Your task to perform on an android device: Add "razer blade" to the cart on walmart.com Image 0: 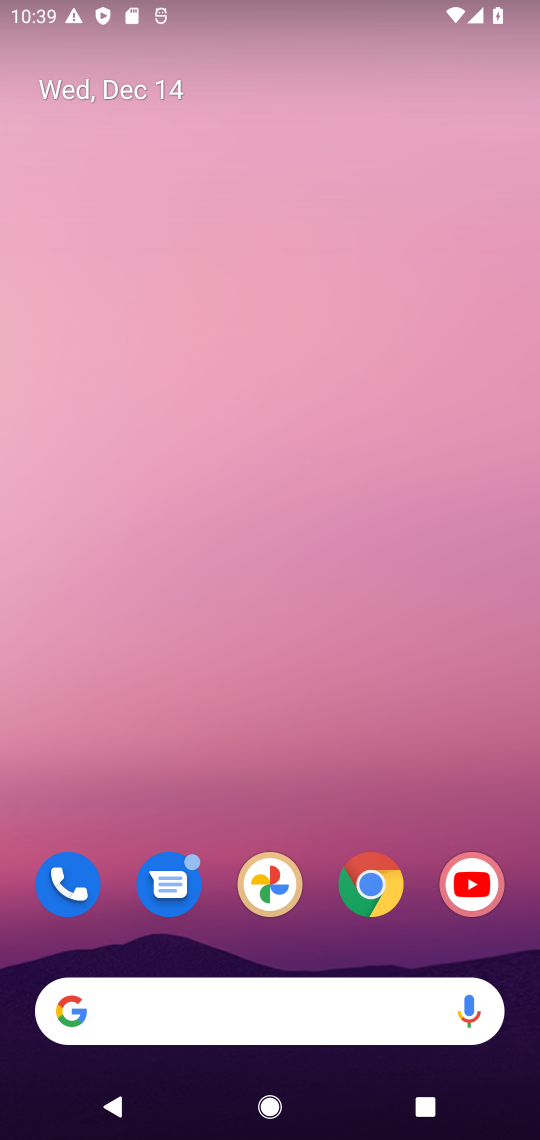
Step 0: click (378, 891)
Your task to perform on an android device: Add "razer blade" to the cart on walmart.com Image 1: 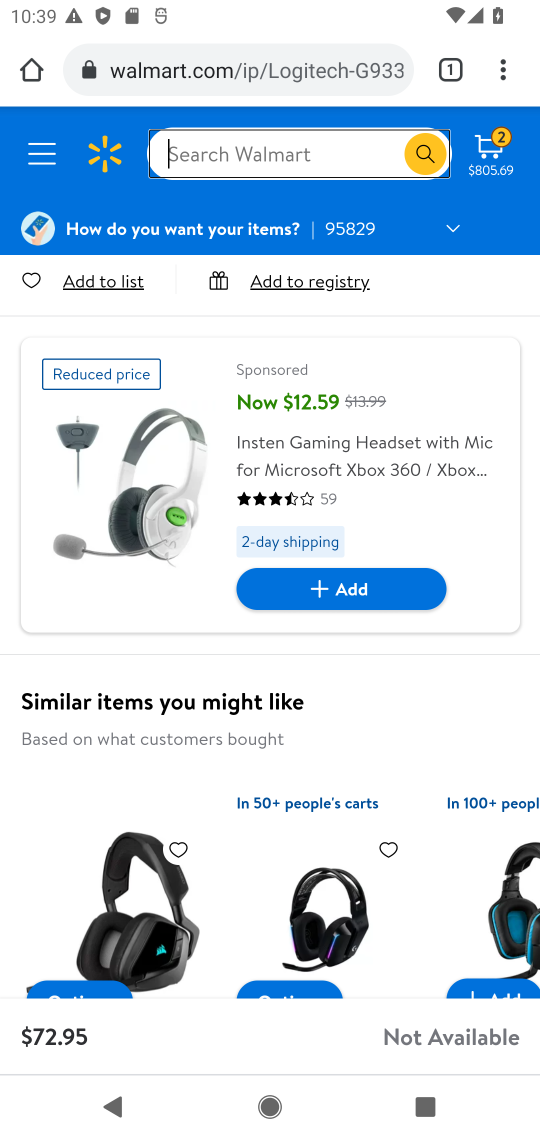
Step 1: click (262, 162)
Your task to perform on an android device: Add "razer blade" to the cart on walmart.com Image 2: 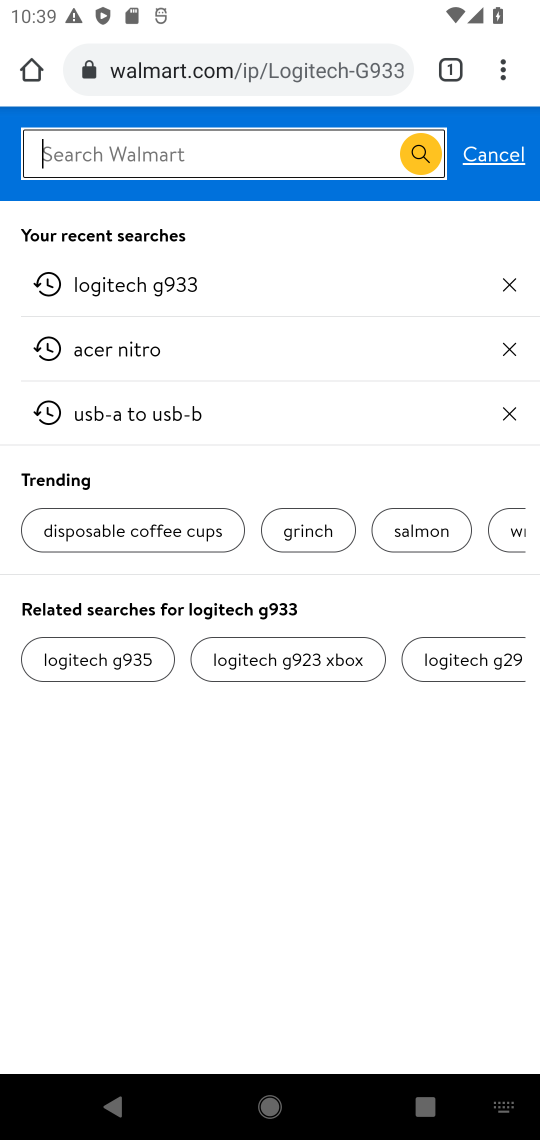
Step 2: press enter
Your task to perform on an android device: Add "razer blade" to the cart on walmart.com Image 3: 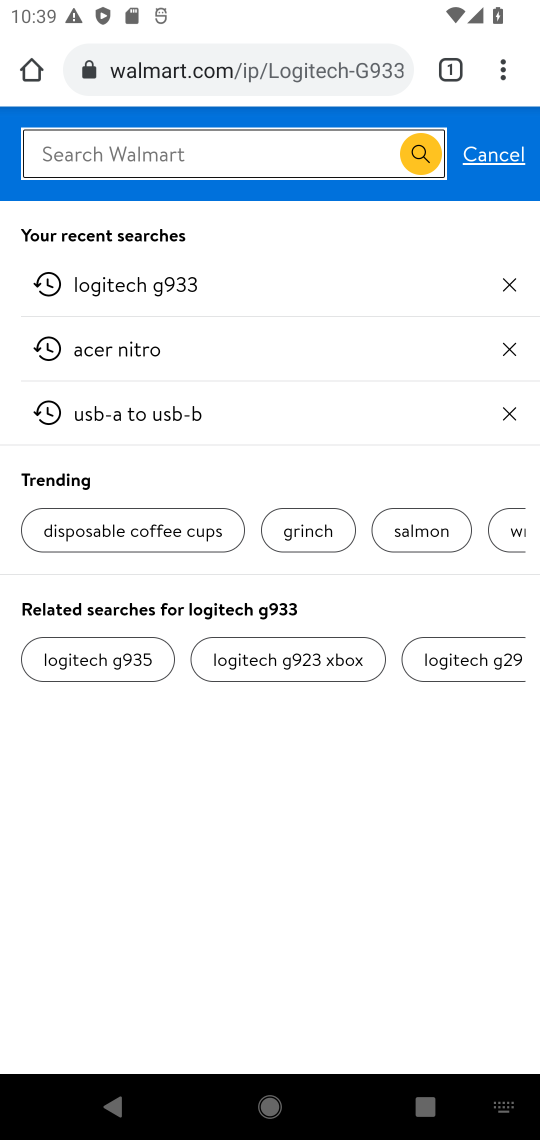
Step 3: type "razer blade"
Your task to perform on an android device: Add "razer blade" to the cart on walmart.com Image 4: 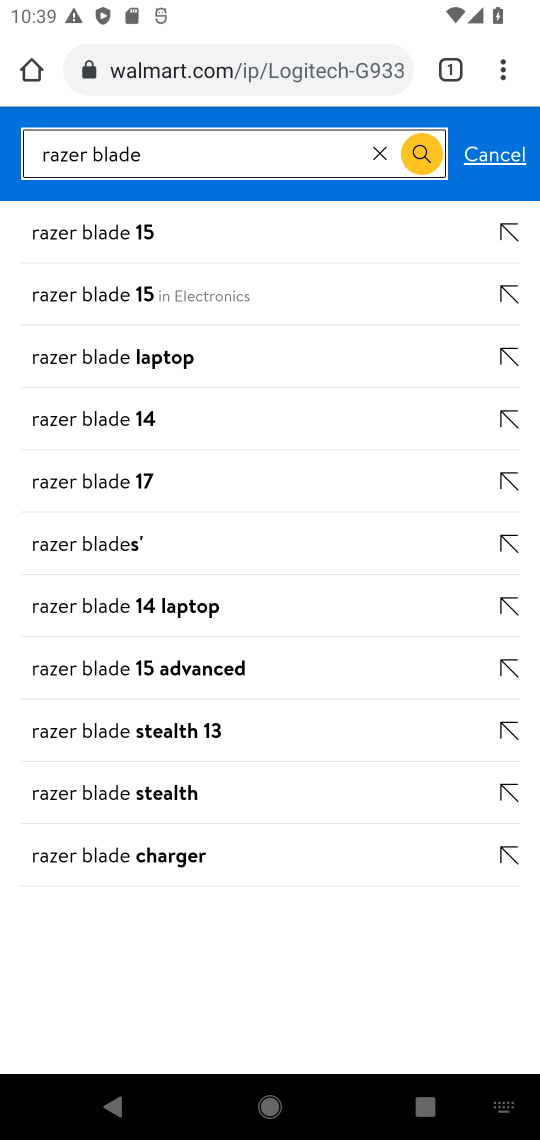
Step 4: click (90, 542)
Your task to perform on an android device: Add "razer blade" to the cart on walmart.com Image 5: 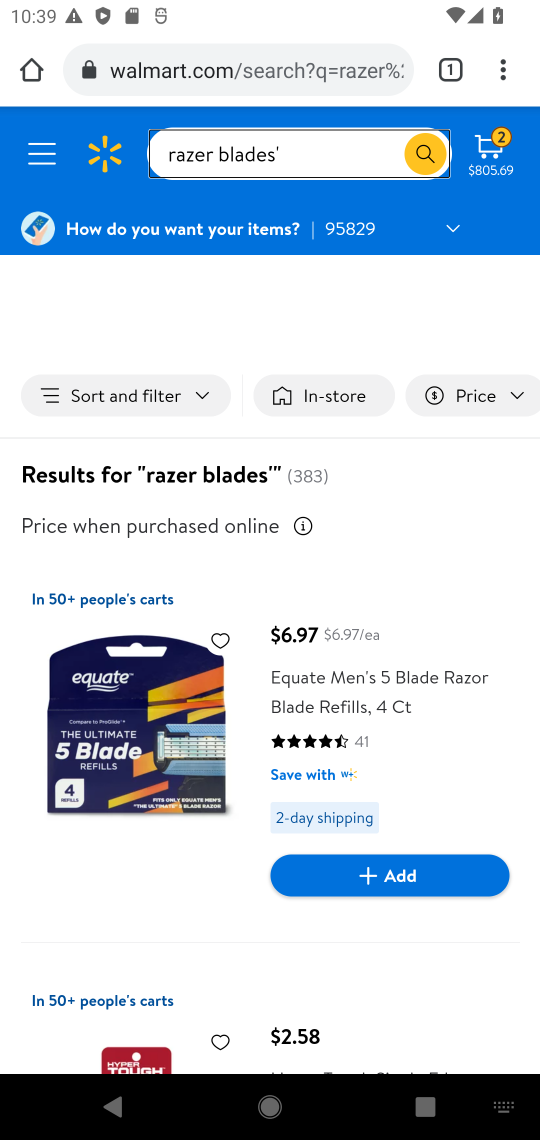
Step 5: drag from (468, 723) to (490, 315)
Your task to perform on an android device: Add "razer blade" to the cart on walmart.com Image 6: 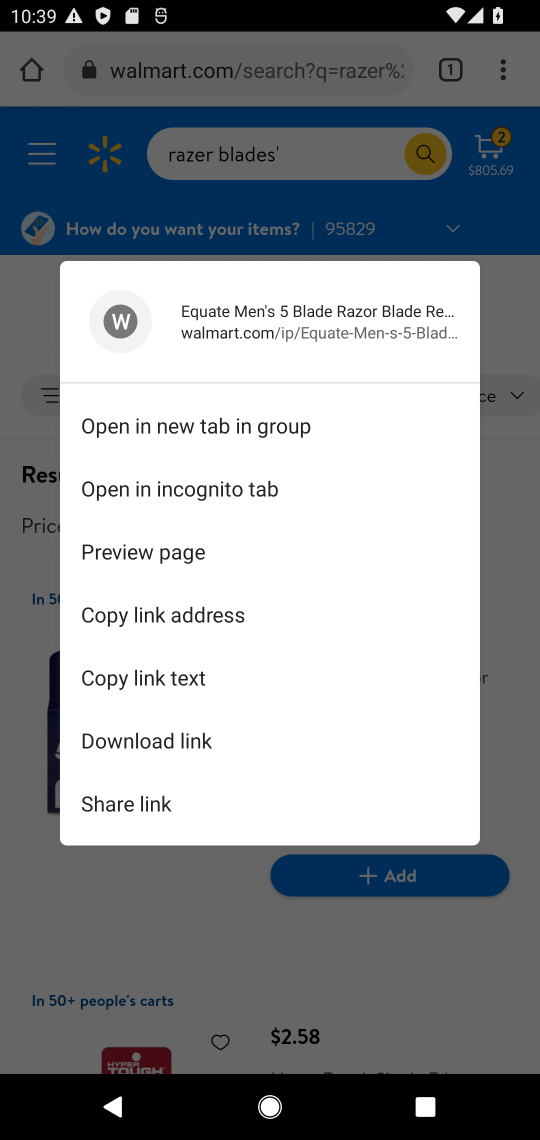
Step 6: click (505, 456)
Your task to perform on an android device: Add "razer blade" to the cart on walmart.com Image 7: 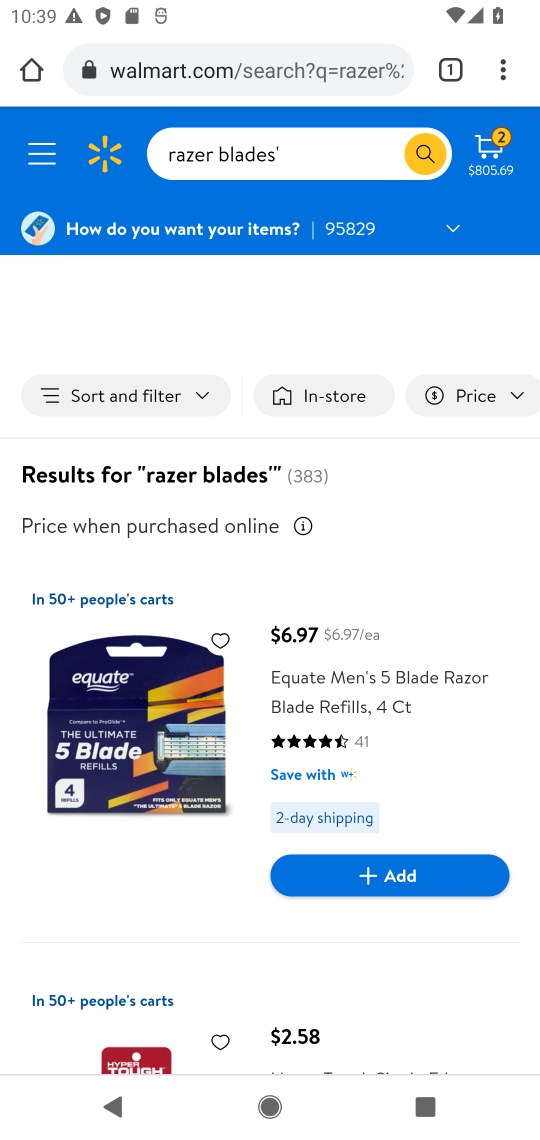
Step 7: drag from (497, 791) to (516, 365)
Your task to perform on an android device: Add "razer blade" to the cart on walmart.com Image 8: 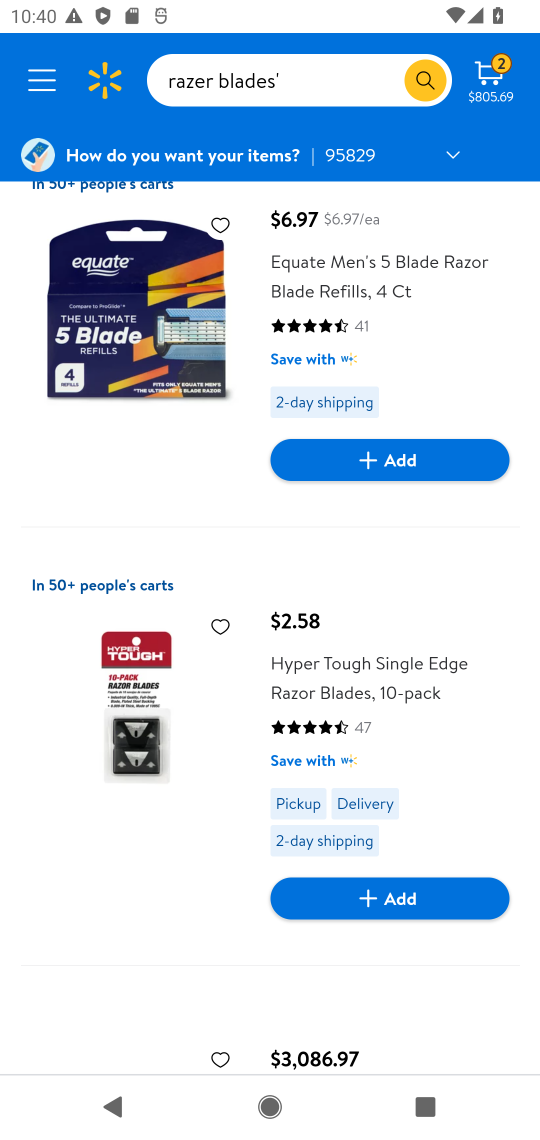
Step 8: click (152, 695)
Your task to perform on an android device: Add "razer blade" to the cart on walmart.com Image 9: 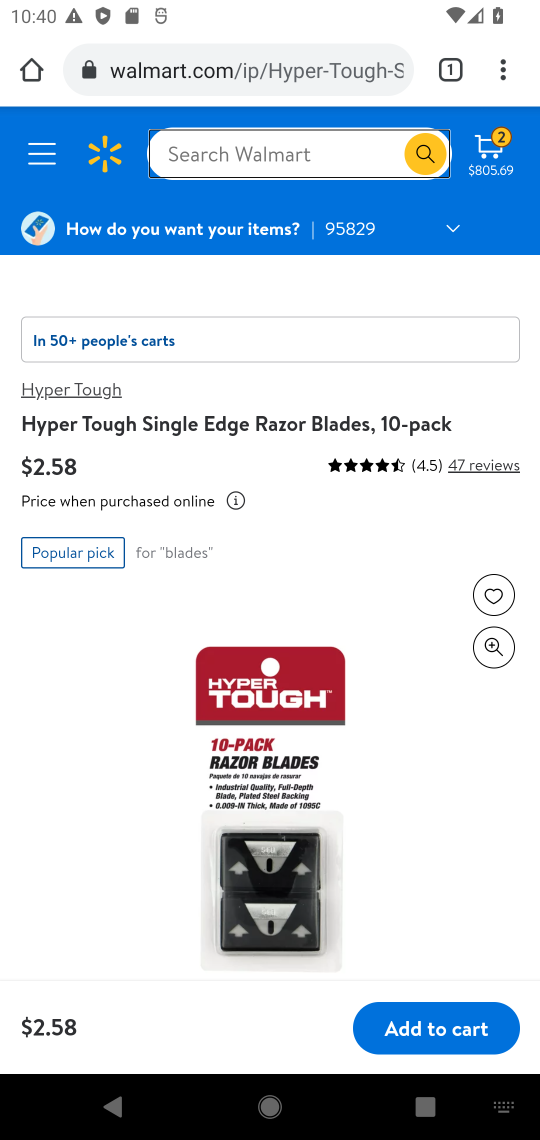
Step 9: click (439, 1041)
Your task to perform on an android device: Add "razer blade" to the cart on walmart.com Image 10: 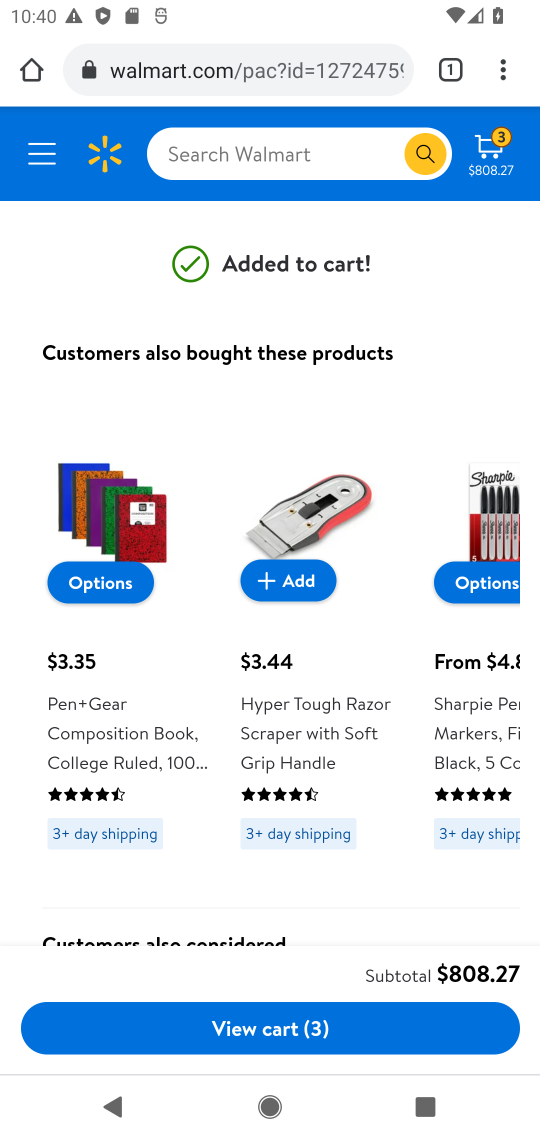
Step 10: task complete